Your task to perform on an android device: open a bookmark in the chrome app Image 0: 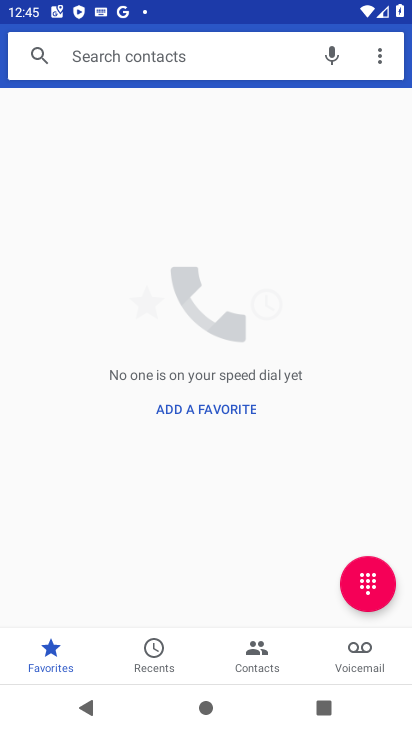
Step 0: press home button
Your task to perform on an android device: open a bookmark in the chrome app Image 1: 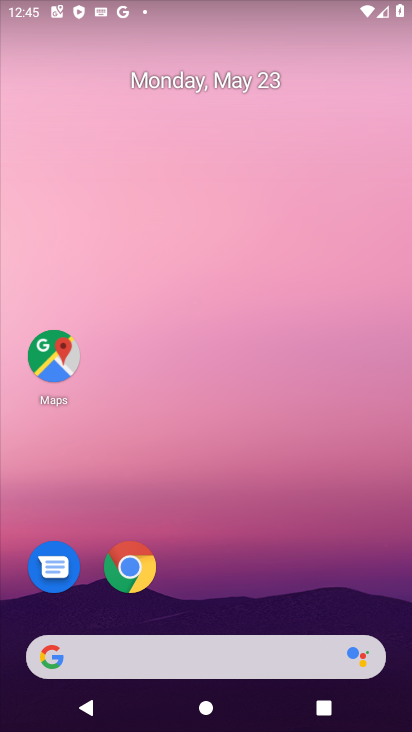
Step 1: click (137, 571)
Your task to perform on an android device: open a bookmark in the chrome app Image 2: 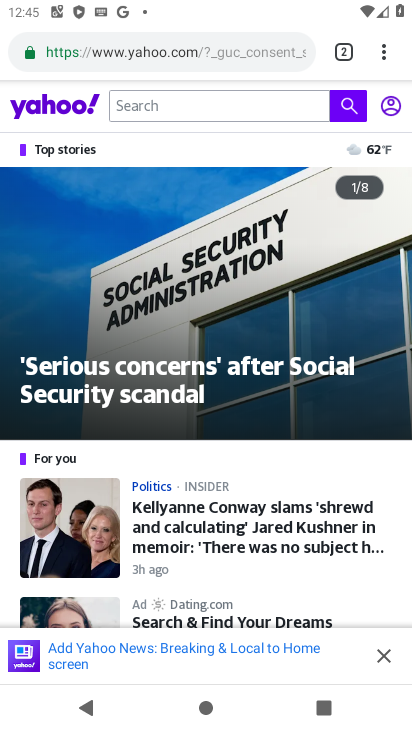
Step 2: click (393, 69)
Your task to perform on an android device: open a bookmark in the chrome app Image 3: 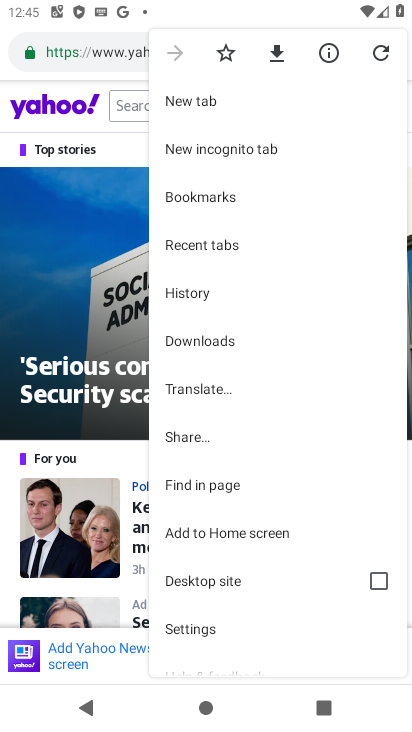
Step 3: click (331, 196)
Your task to perform on an android device: open a bookmark in the chrome app Image 4: 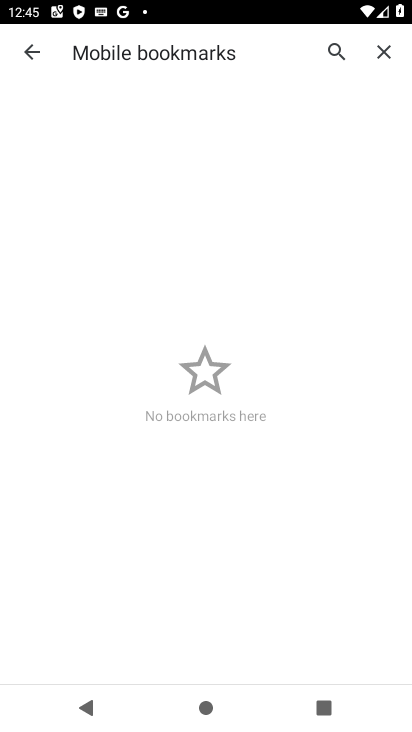
Step 4: task complete